Your task to perform on an android device: Open the stopwatch Image 0: 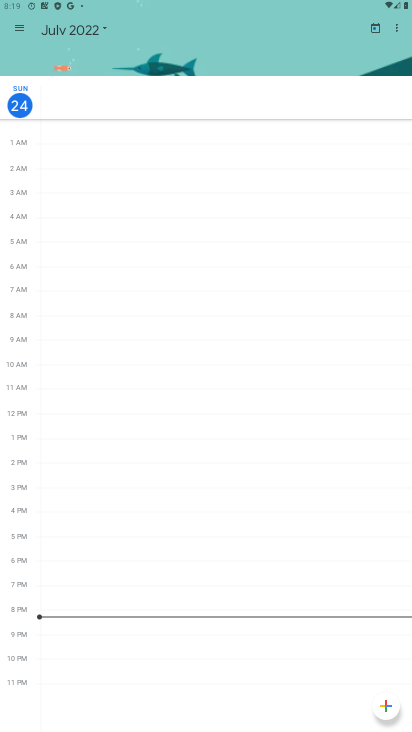
Step 0: press home button
Your task to perform on an android device: Open the stopwatch Image 1: 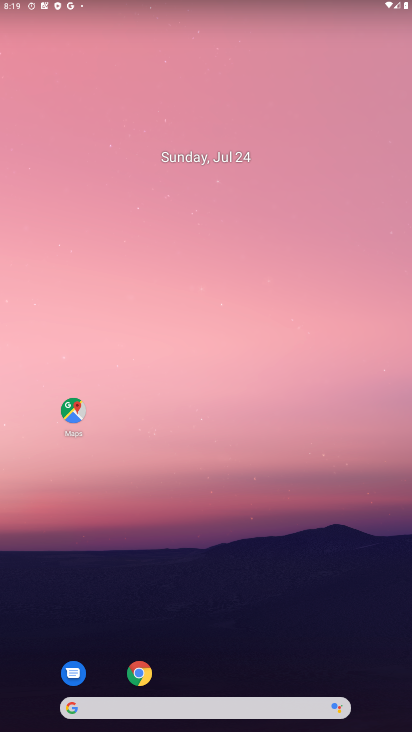
Step 1: drag from (24, 691) to (268, 19)
Your task to perform on an android device: Open the stopwatch Image 2: 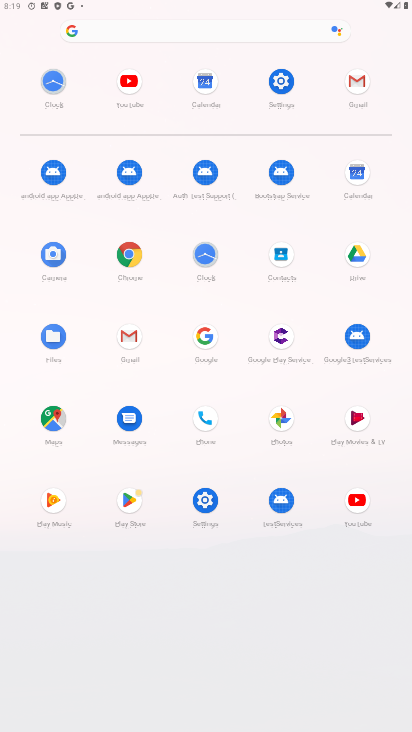
Step 2: click (197, 248)
Your task to perform on an android device: Open the stopwatch Image 3: 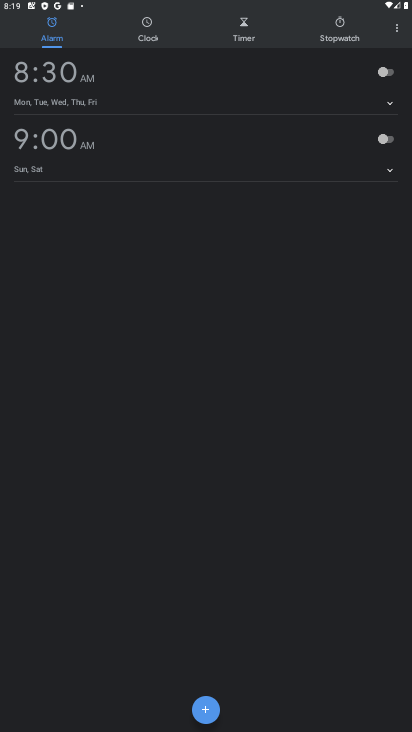
Step 3: click (350, 41)
Your task to perform on an android device: Open the stopwatch Image 4: 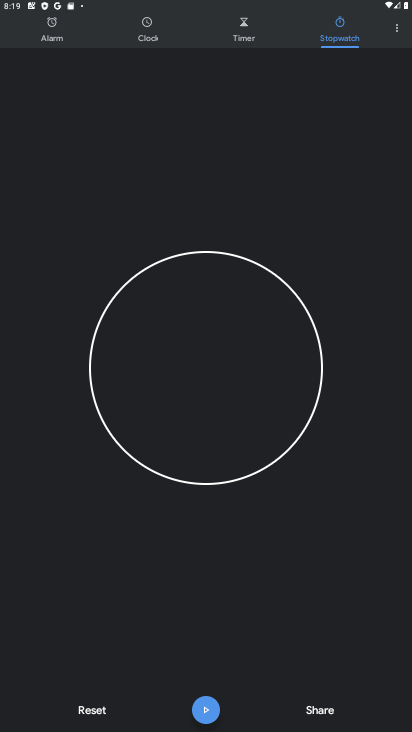
Step 4: click (201, 696)
Your task to perform on an android device: Open the stopwatch Image 5: 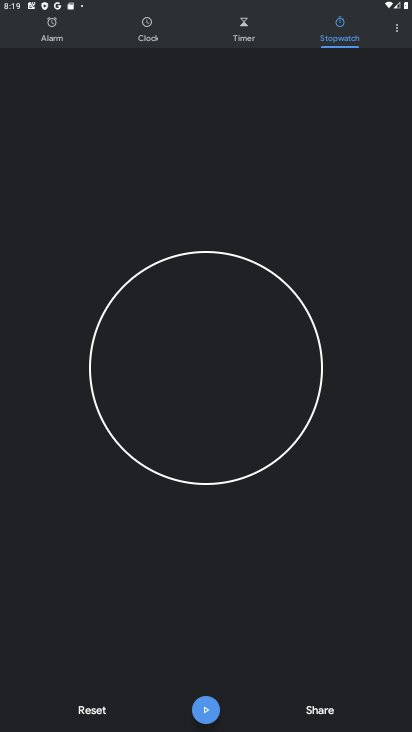
Step 5: task complete